Your task to perform on an android device: turn on airplane mode Image 0: 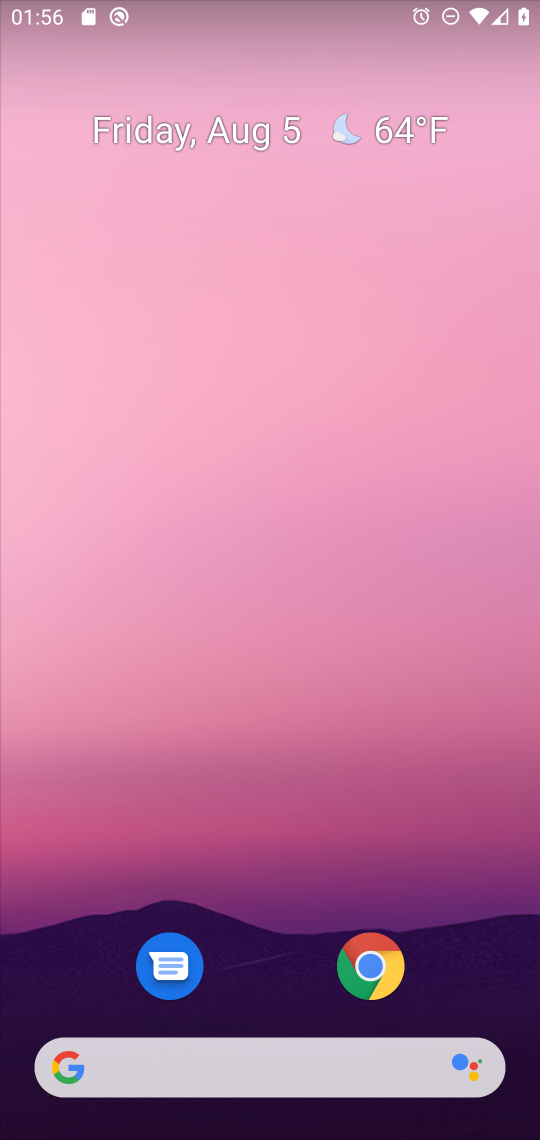
Step 0: drag from (293, 895) to (355, 0)
Your task to perform on an android device: turn on airplane mode Image 1: 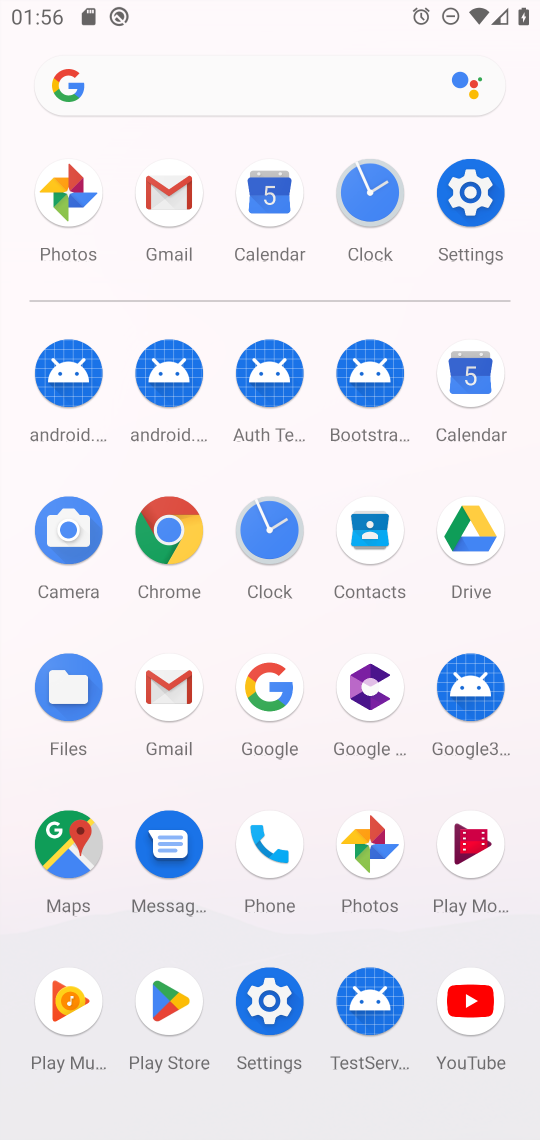
Step 1: click (479, 184)
Your task to perform on an android device: turn on airplane mode Image 2: 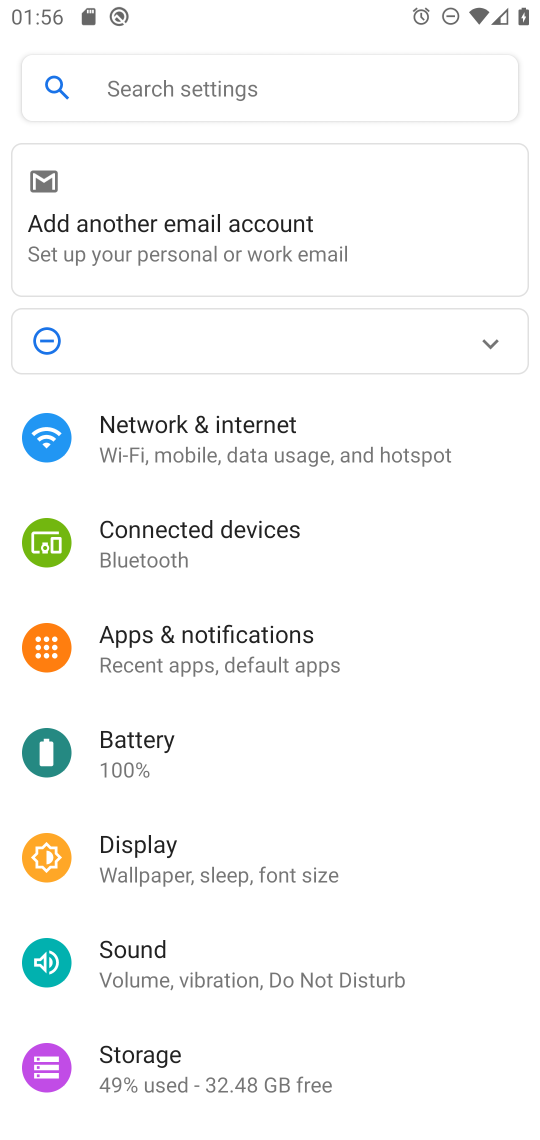
Step 2: click (324, 443)
Your task to perform on an android device: turn on airplane mode Image 3: 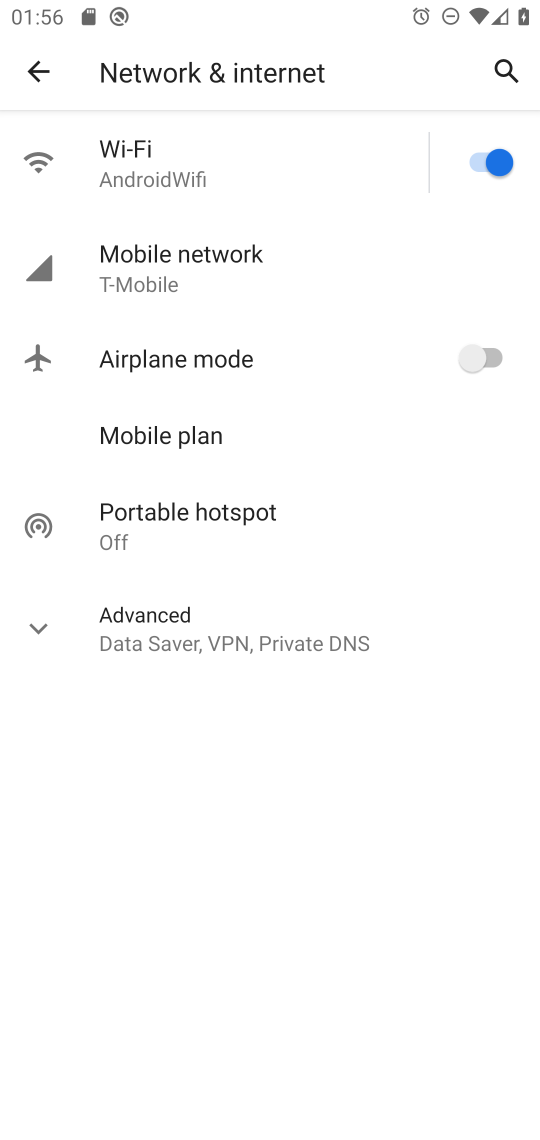
Step 3: click (485, 345)
Your task to perform on an android device: turn on airplane mode Image 4: 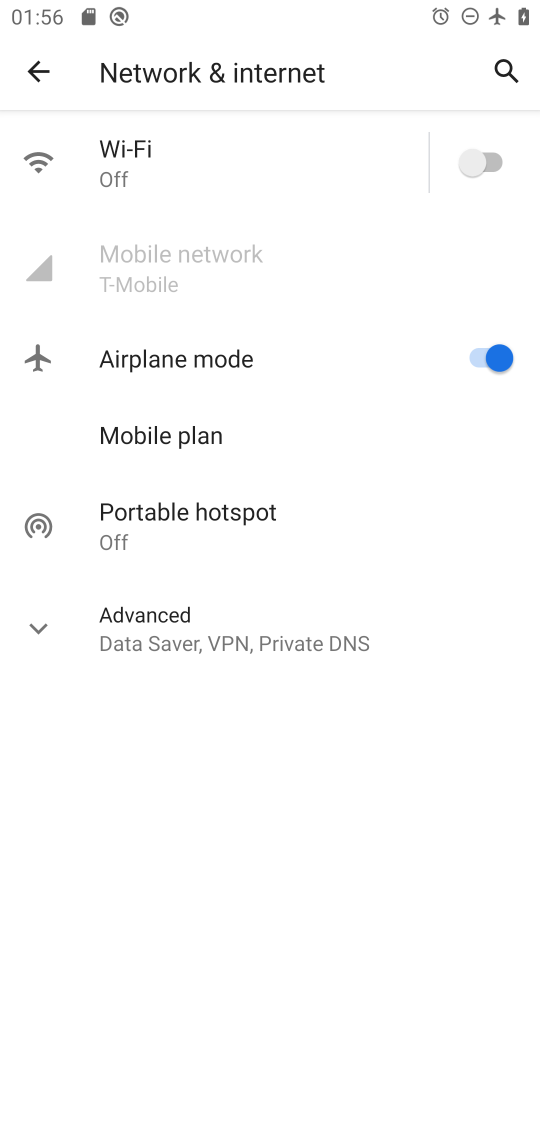
Step 4: task complete